Your task to perform on an android device: When is my next appointment? Image 0: 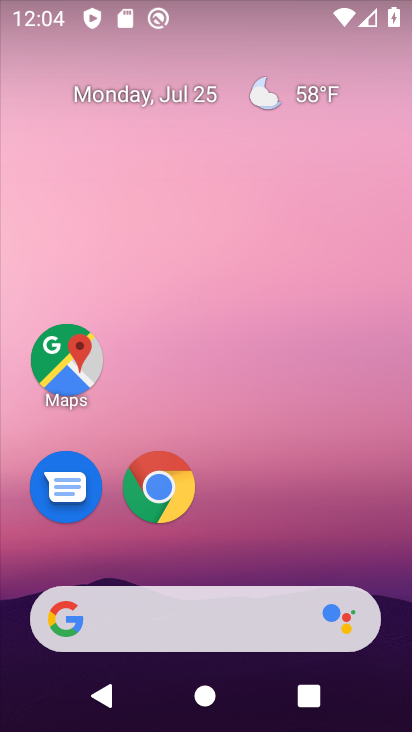
Step 0: drag from (269, 421) to (306, 0)
Your task to perform on an android device: When is my next appointment? Image 1: 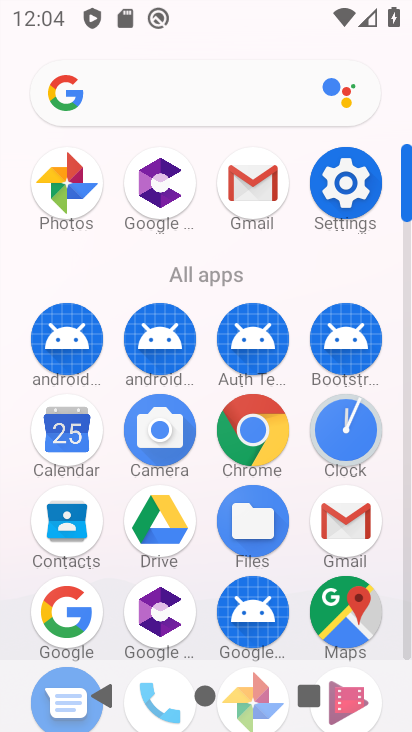
Step 1: click (71, 435)
Your task to perform on an android device: When is my next appointment? Image 2: 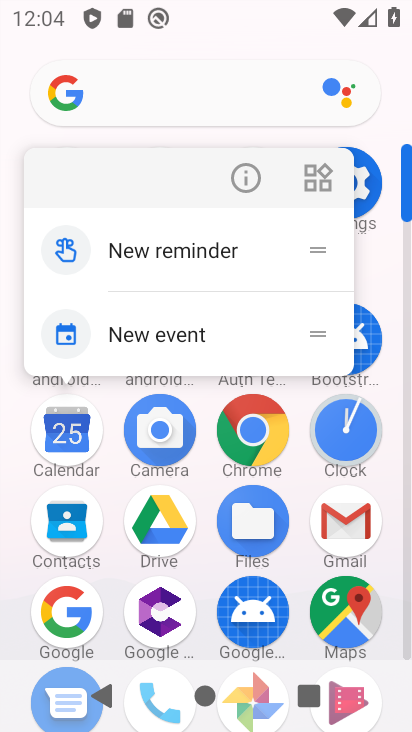
Step 2: click (72, 433)
Your task to perform on an android device: When is my next appointment? Image 3: 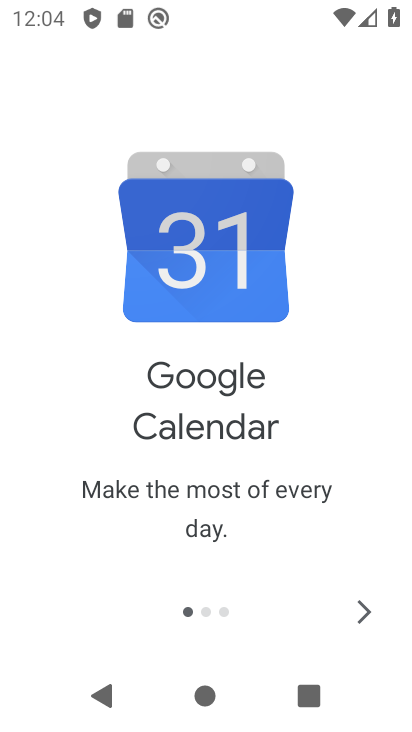
Step 3: click (355, 606)
Your task to perform on an android device: When is my next appointment? Image 4: 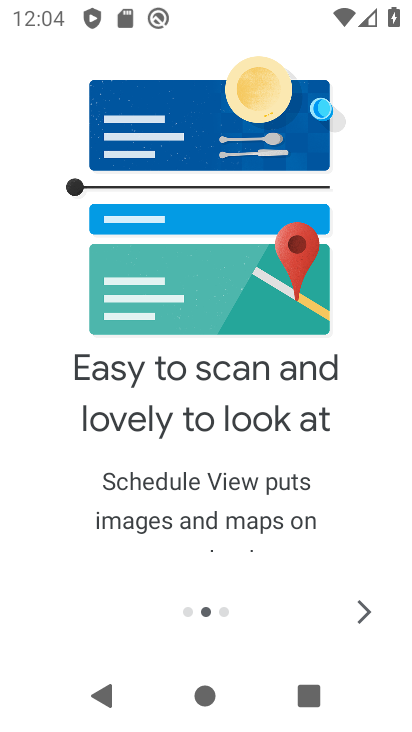
Step 4: click (355, 606)
Your task to perform on an android device: When is my next appointment? Image 5: 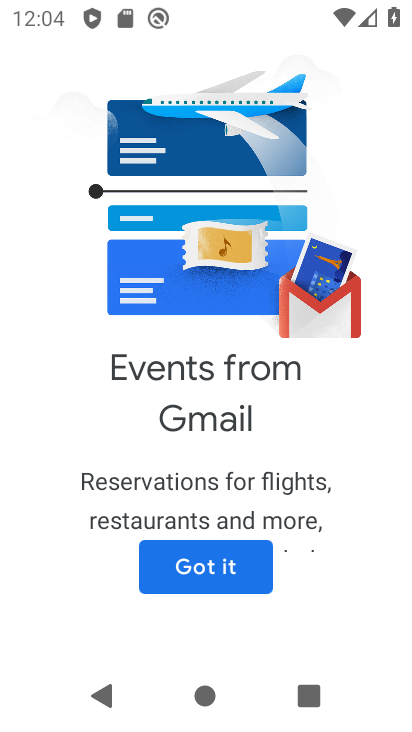
Step 5: click (180, 555)
Your task to perform on an android device: When is my next appointment? Image 6: 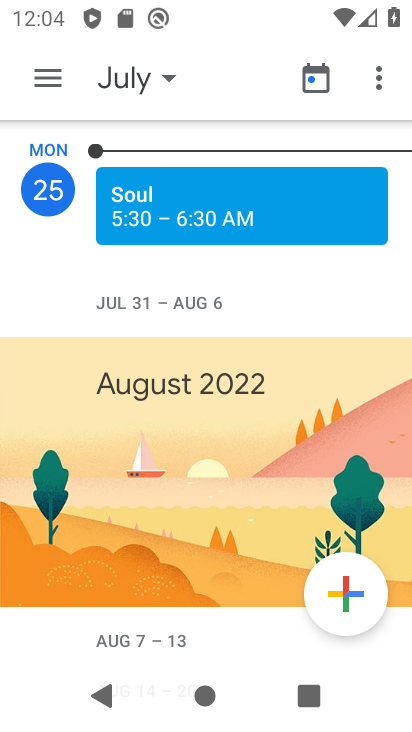
Step 6: task complete